Your task to perform on an android device: Open the stopwatch Image 0: 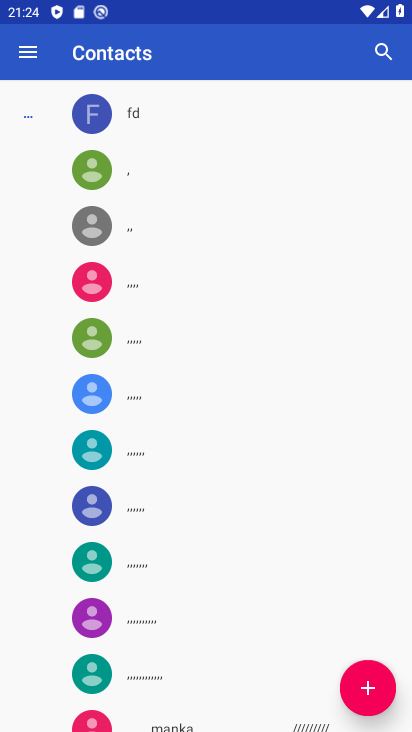
Step 0: press home button
Your task to perform on an android device: Open the stopwatch Image 1: 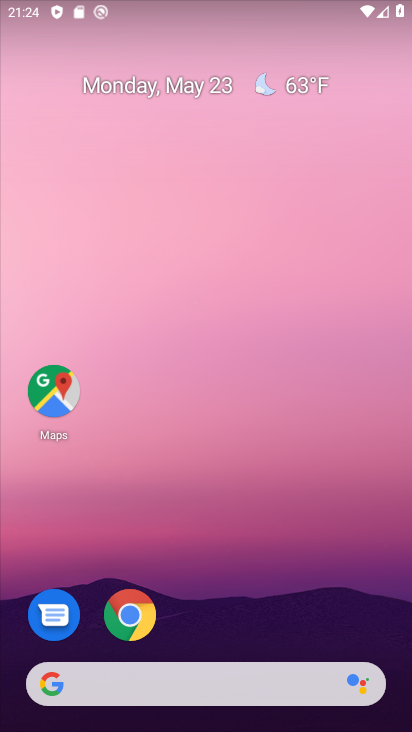
Step 1: drag from (237, 612) to (235, 213)
Your task to perform on an android device: Open the stopwatch Image 2: 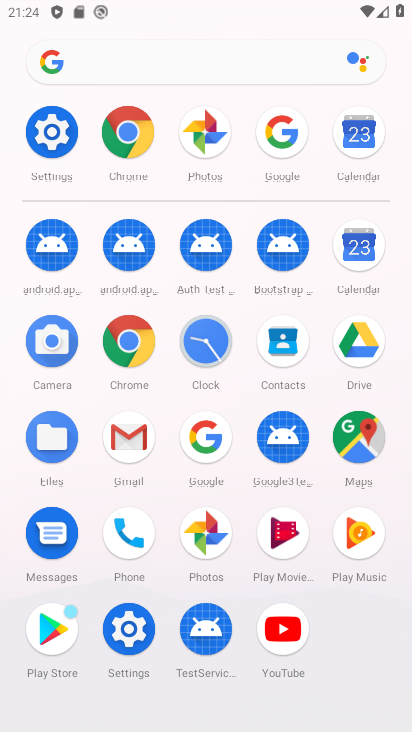
Step 2: click (206, 340)
Your task to perform on an android device: Open the stopwatch Image 3: 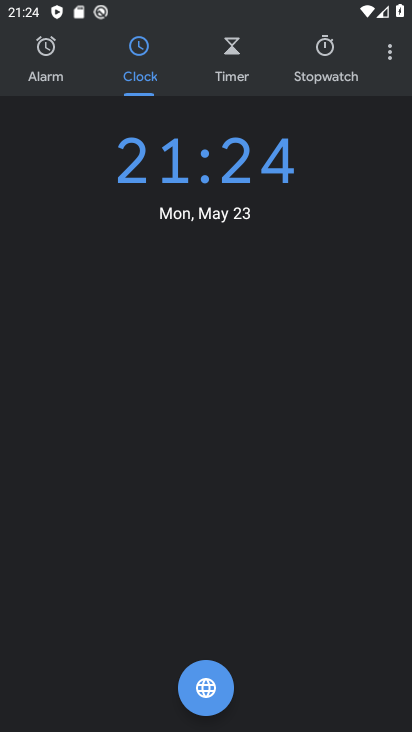
Step 3: click (323, 59)
Your task to perform on an android device: Open the stopwatch Image 4: 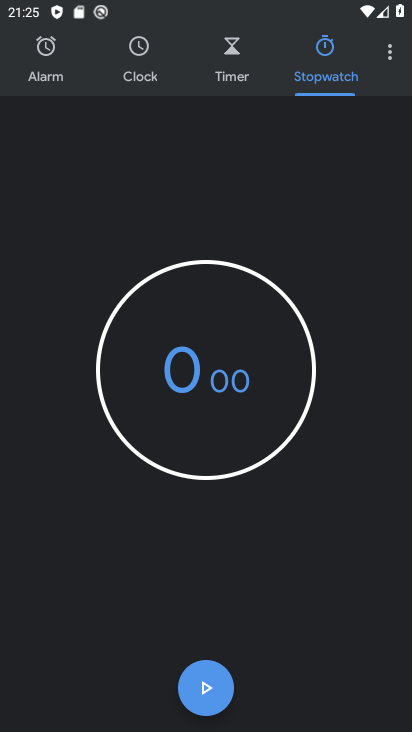
Step 4: click (212, 690)
Your task to perform on an android device: Open the stopwatch Image 5: 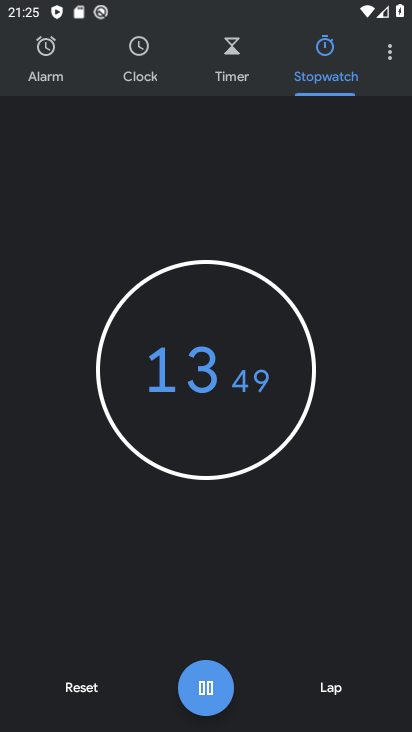
Step 5: task complete